Your task to perform on an android device: open app "Airtel Thanks" (install if not already installed), go to login, and select forgot password Image 0: 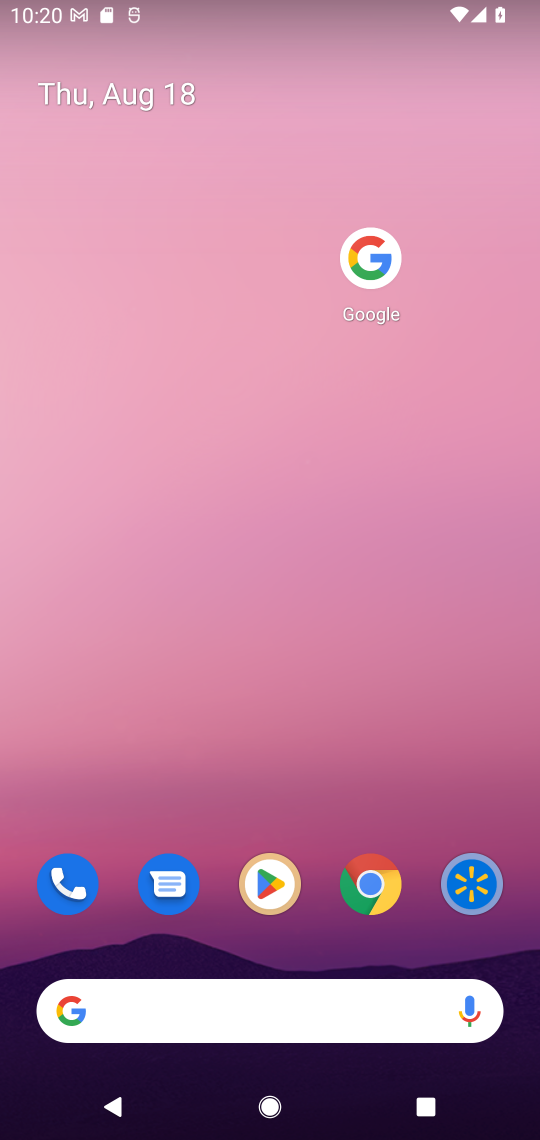
Step 0: click (285, 905)
Your task to perform on an android device: open app "Airtel Thanks" (install if not already installed), go to login, and select forgot password Image 1: 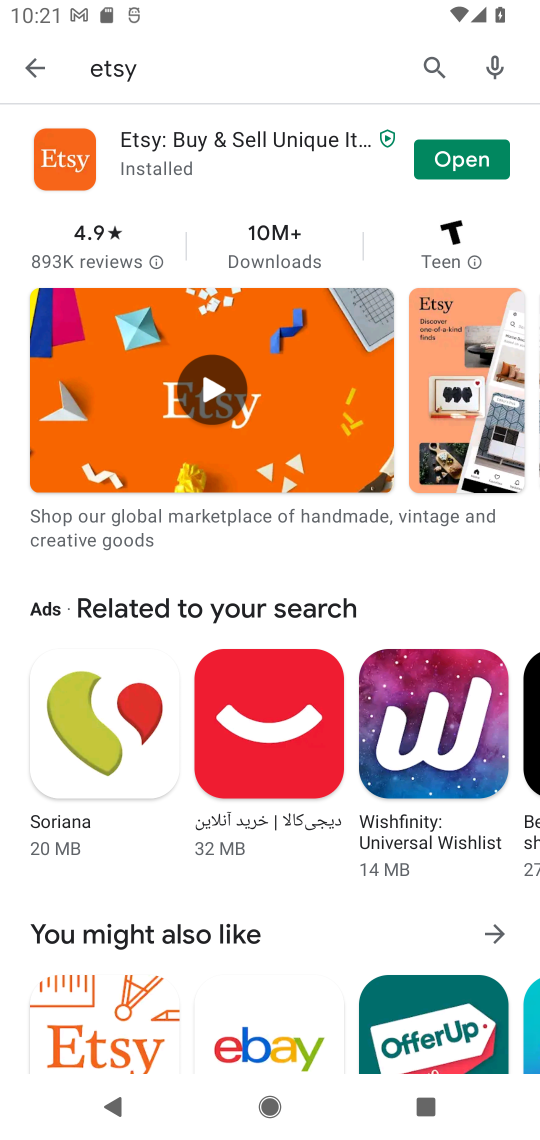
Step 1: click (430, 68)
Your task to perform on an android device: open app "Airtel Thanks" (install if not already installed), go to login, and select forgot password Image 2: 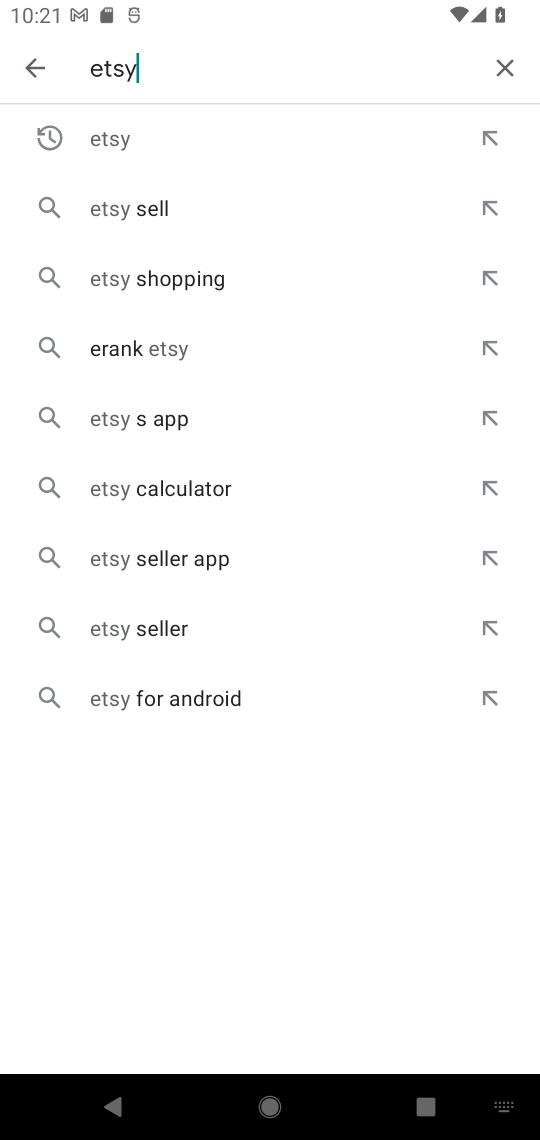
Step 2: click (495, 59)
Your task to perform on an android device: open app "Airtel Thanks" (install if not already installed), go to login, and select forgot password Image 3: 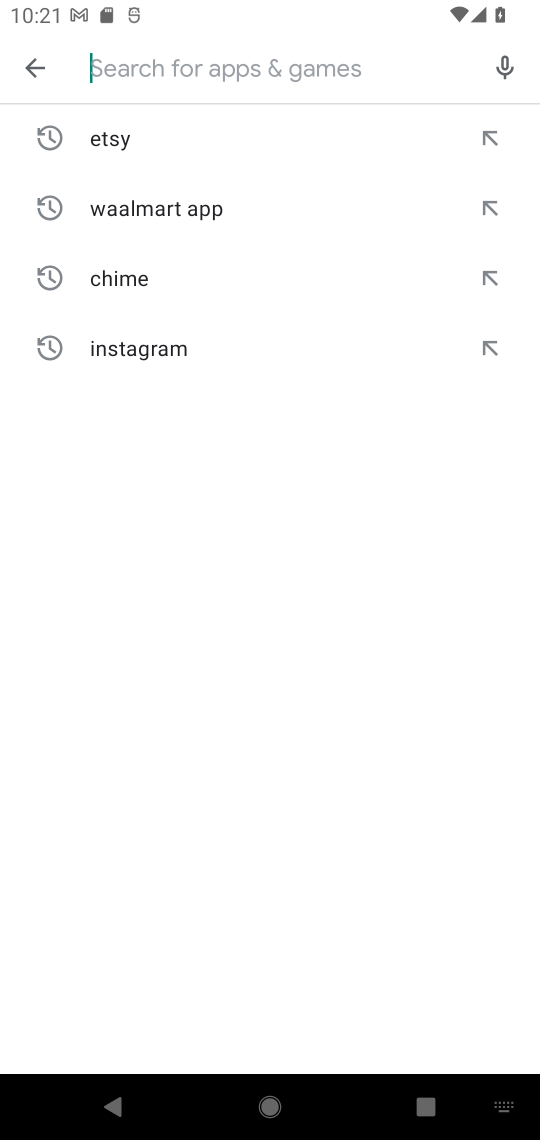
Step 3: type "airtel"
Your task to perform on an android device: open app "Airtel Thanks" (install if not already installed), go to login, and select forgot password Image 4: 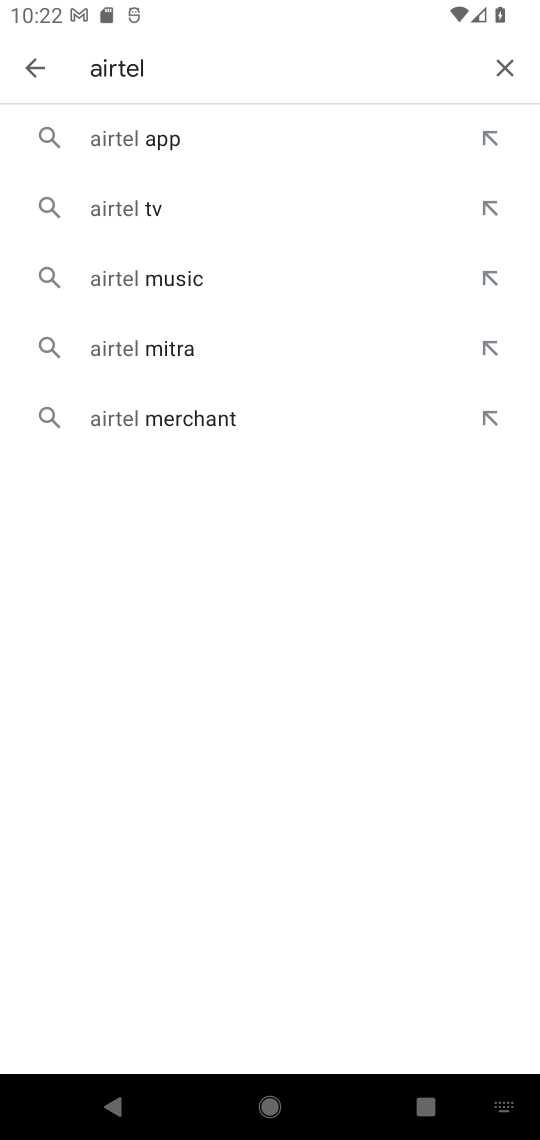
Step 4: click (140, 172)
Your task to perform on an android device: open app "Airtel Thanks" (install if not already installed), go to login, and select forgot password Image 5: 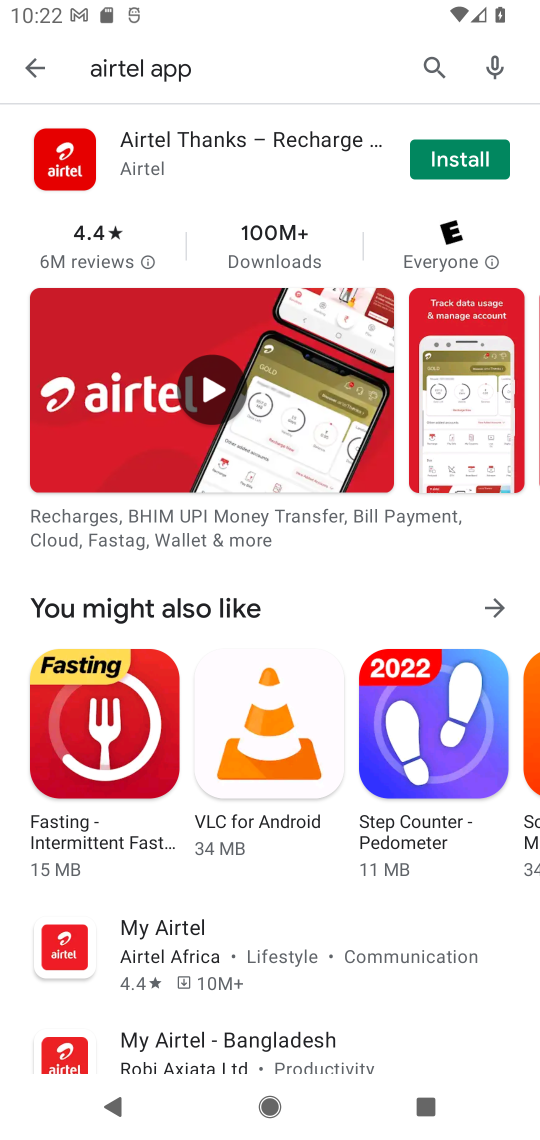
Step 5: click (447, 174)
Your task to perform on an android device: open app "Airtel Thanks" (install if not already installed), go to login, and select forgot password Image 6: 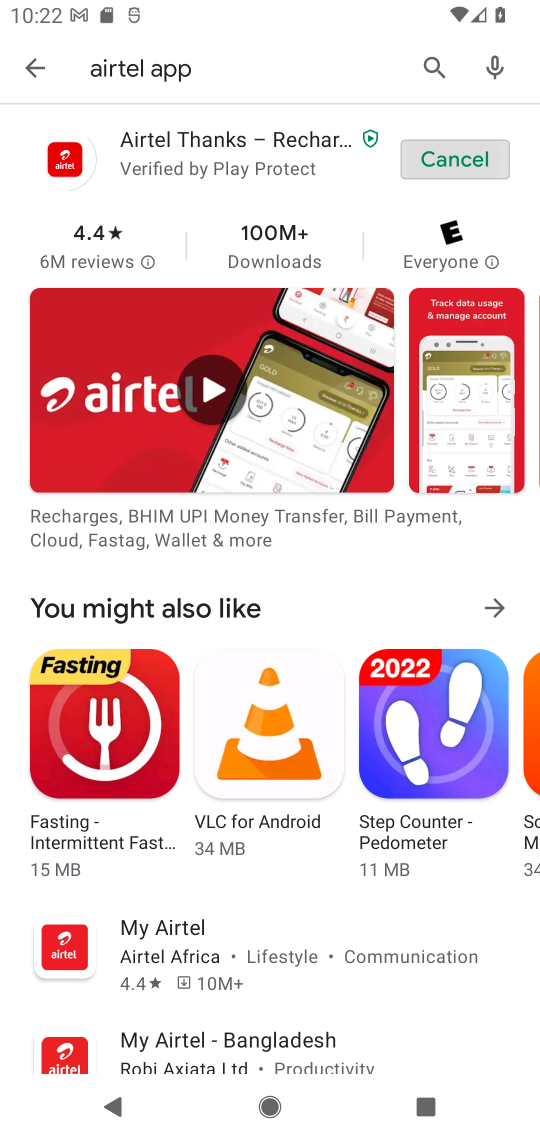
Step 6: task complete